Your task to perform on an android device: turn on showing notifications on the lock screen Image 0: 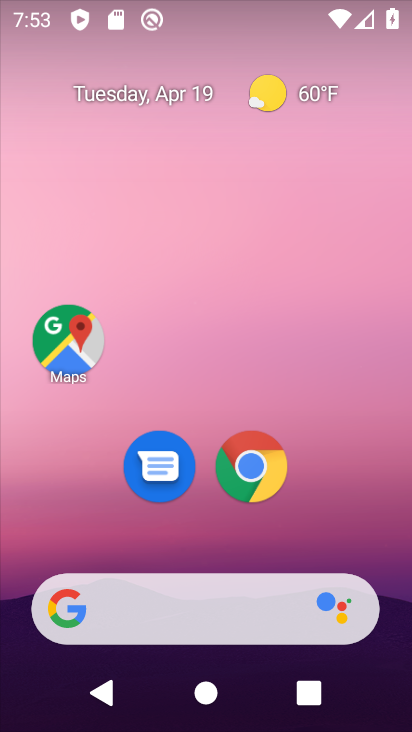
Step 0: drag from (247, 496) to (308, 75)
Your task to perform on an android device: turn on showing notifications on the lock screen Image 1: 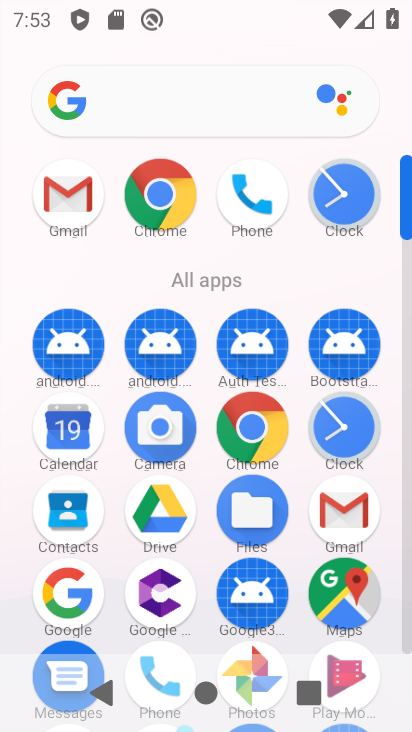
Step 1: drag from (298, 629) to (338, 203)
Your task to perform on an android device: turn on showing notifications on the lock screen Image 2: 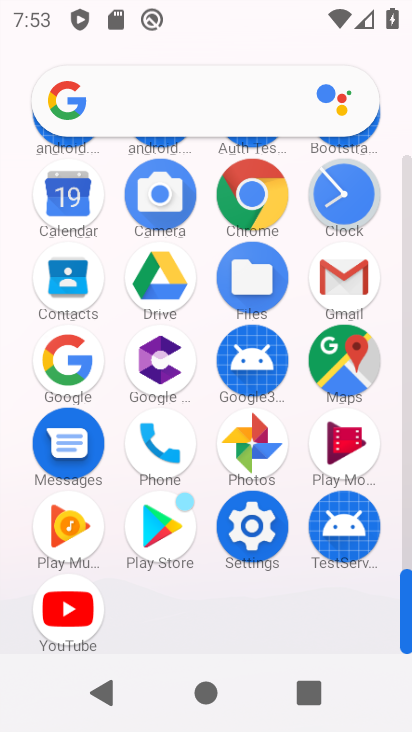
Step 2: click (247, 513)
Your task to perform on an android device: turn on showing notifications on the lock screen Image 3: 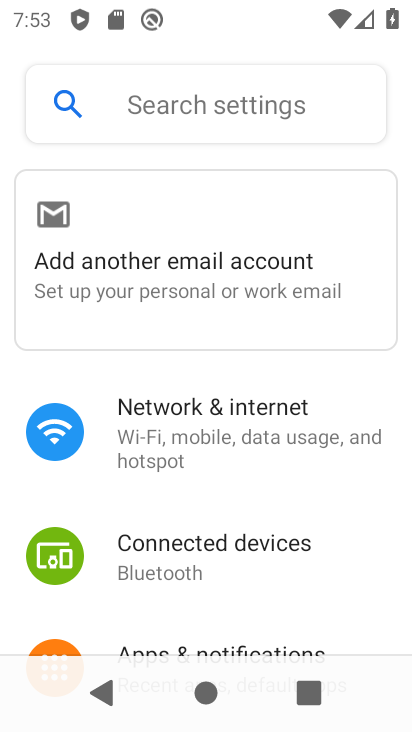
Step 3: drag from (322, 591) to (409, 319)
Your task to perform on an android device: turn on showing notifications on the lock screen Image 4: 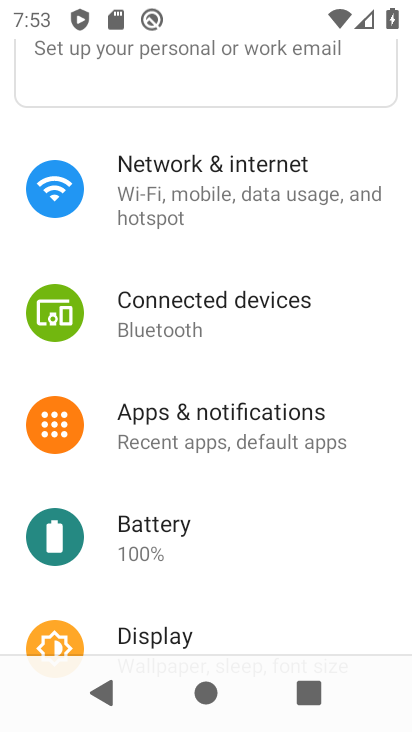
Step 4: click (226, 415)
Your task to perform on an android device: turn on showing notifications on the lock screen Image 5: 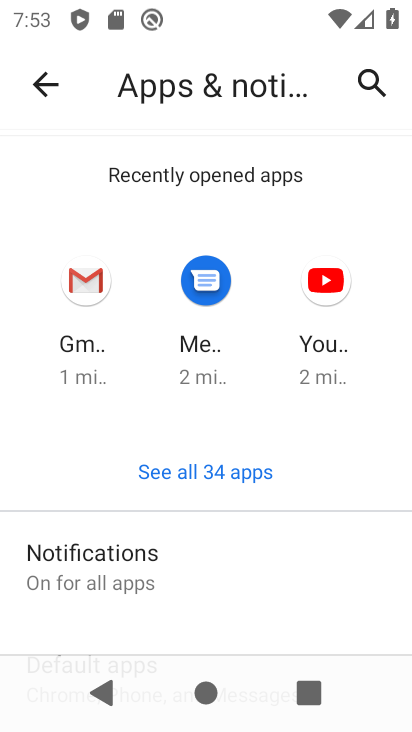
Step 5: drag from (140, 585) to (172, 362)
Your task to perform on an android device: turn on showing notifications on the lock screen Image 6: 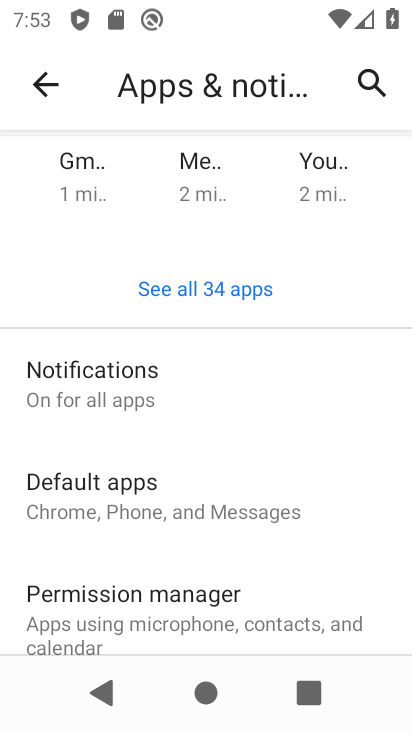
Step 6: click (168, 367)
Your task to perform on an android device: turn on showing notifications on the lock screen Image 7: 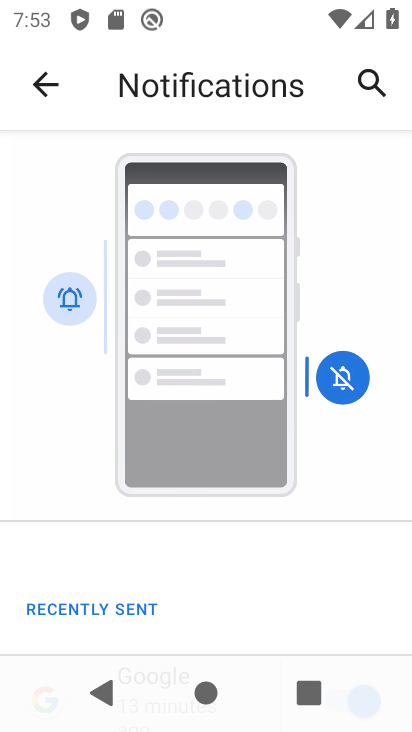
Step 7: drag from (236, 632) to (322, 212)
Your task to perform on an android device: turn on showing notifications on the lock screen Image 8: 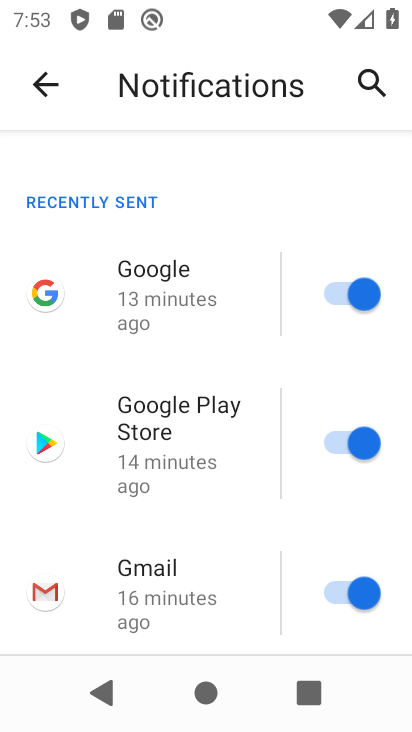
Step 8: drag from (189, 584) to (279, 158)
Your task to perform on an android device: turn on showing notifications on the lock screen Image 9: 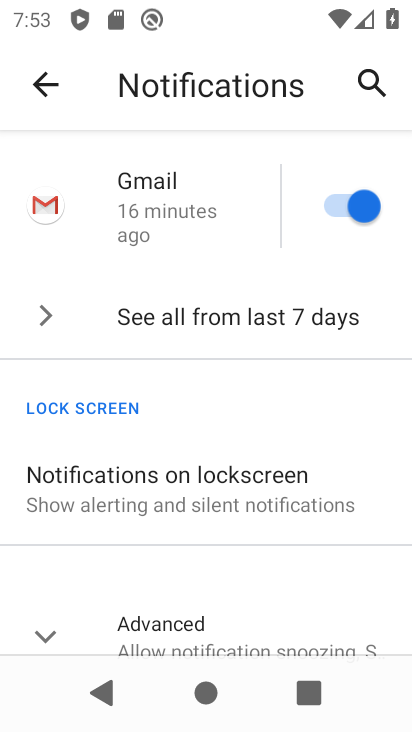
Step 9: click (143, 482)
Your task to perform on an android device: turn on showing notifications on the lock screen Image 10: 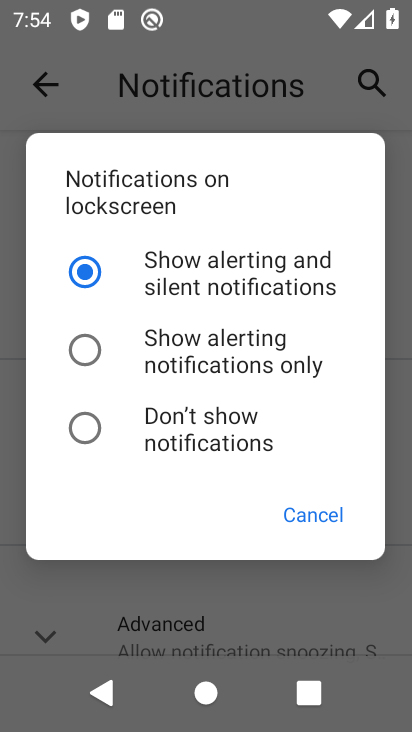
Step 10: click (206, 352)
Your task to perform on an android device: turn on showing notifications on the lock screen Image 11: 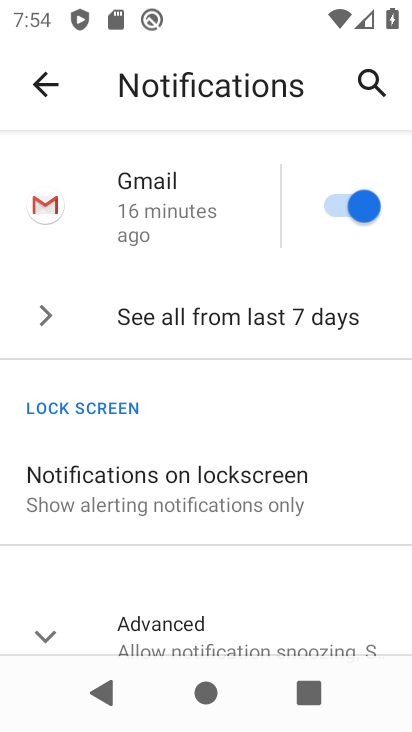
Step 11: task complete